Your task to perform on an android device: set default search engine in the chrome app Image 0: 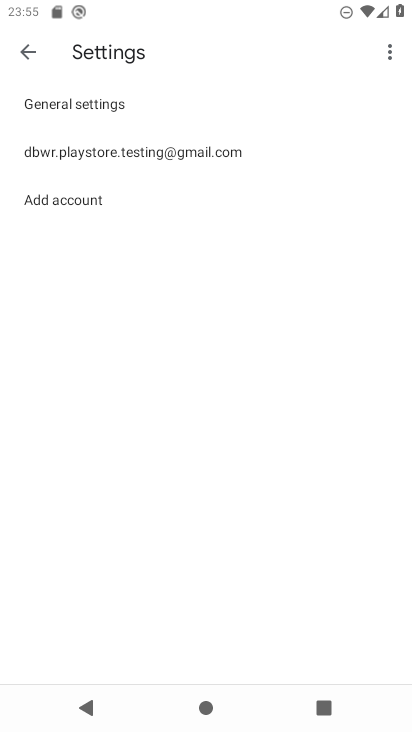
Step 0: press home button
Your task to perform on an android device: set default search engine in the chrome app Image 1: 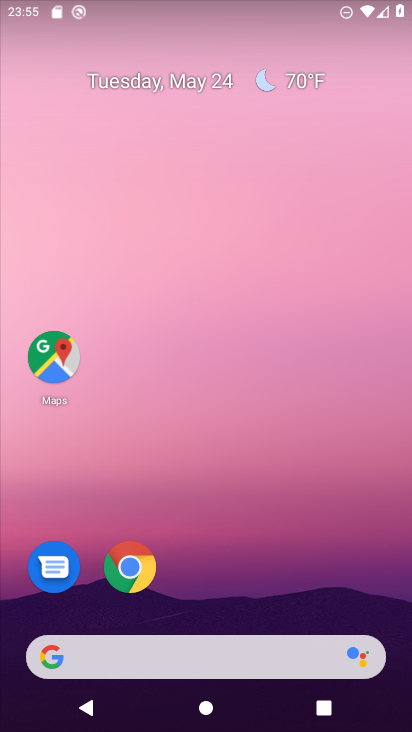
Step 1: click (133, 561)
Your task to perform on an android device: set default search engine in the chrome app Image 2: 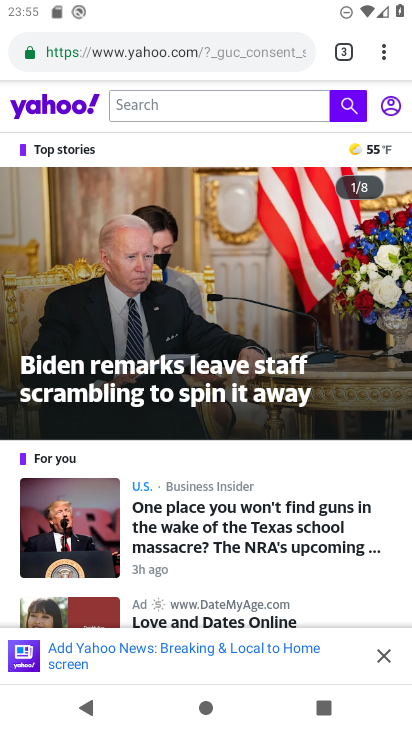
Step 2: click (378, 54)
Your task to perform on an android device: set default search engine in the chrome app Image 3: 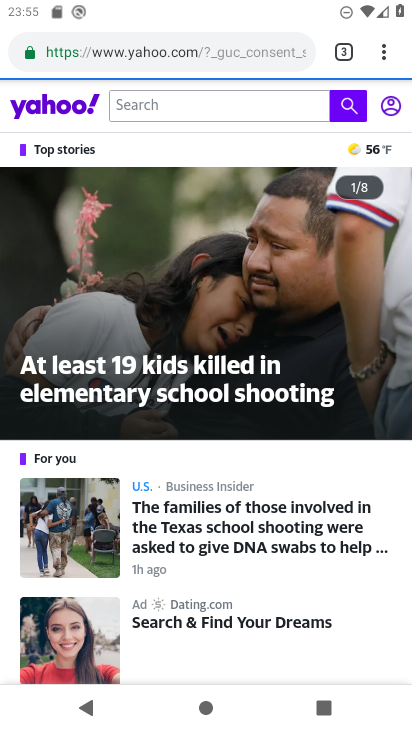
Step 3: click (382, 46)
Your task to perform on an android device: set default search engine in the chrome app Image 4: 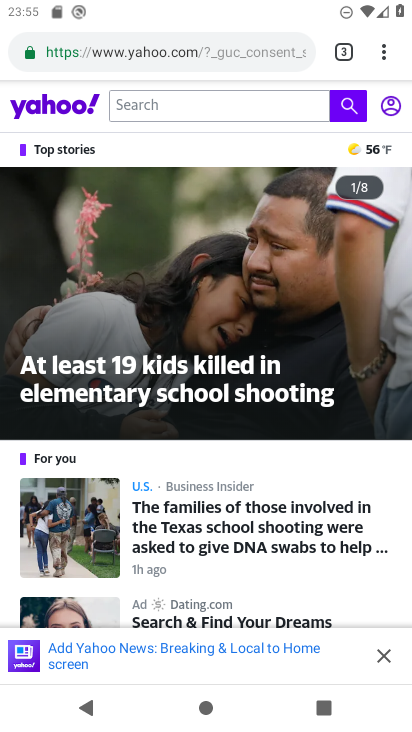
Step 4: click (382, 46)
Your task to perform on an android device: set default search engine in the chrome app Image 5: 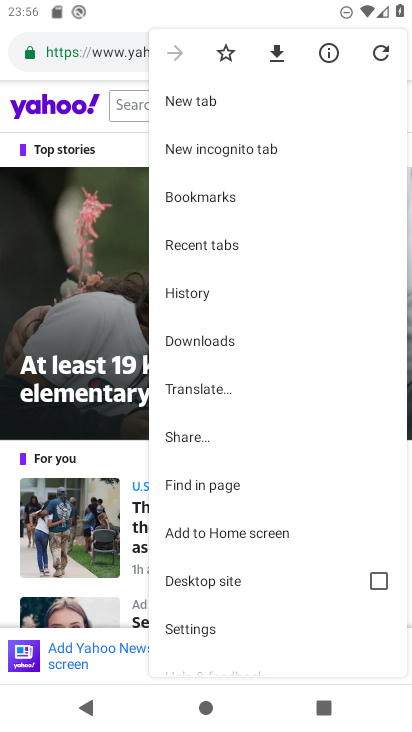
Step 5: click (238, 619)
Your task to perform on an android device: set default search engine in the chrome app Image 6: 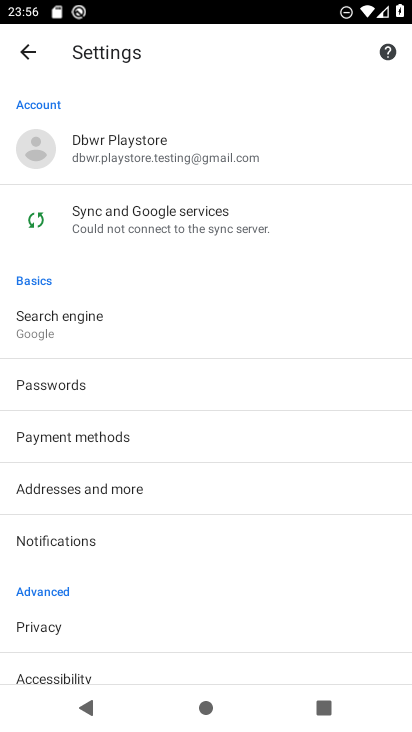
Step 6: click (149, 329)
Your task to perform on an android device: set default search engine in the chrome app Image 7: 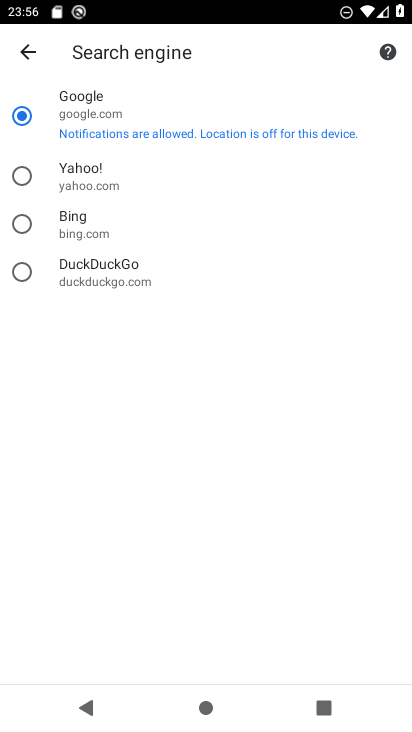
Step 7: click (194, 107)
Your task to perform on an android device: set default search engine in the chrome app Image 8: 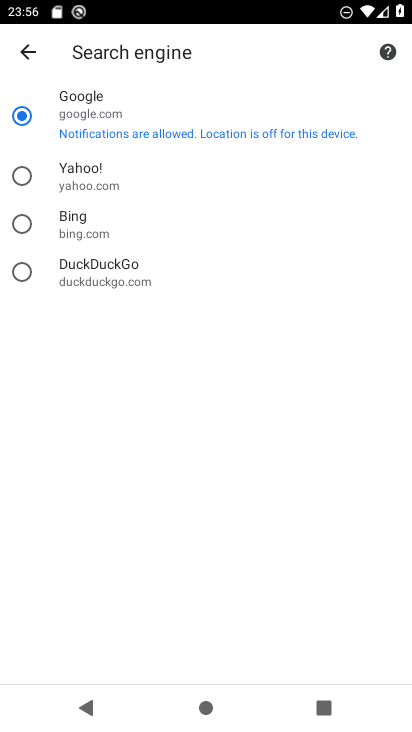
Step 8: task complete